Your task to perform on an android device: open app "Grab" (install if not already installed), go to login, and select forgot password Image 0: 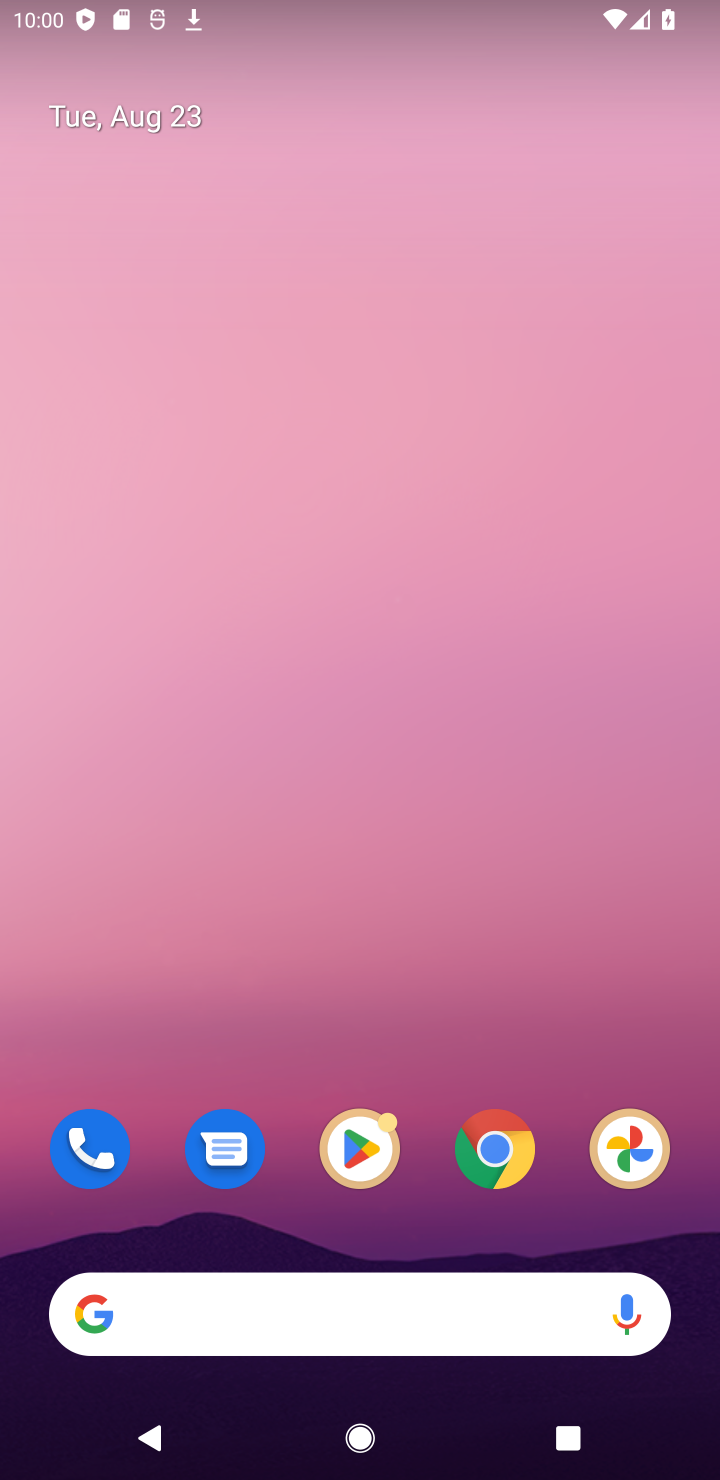
Step 0: click (351, 1173)
Your task to perform on an android device: open app "Grab" (install if not already installed), go to login, and select forgot password Image 1: 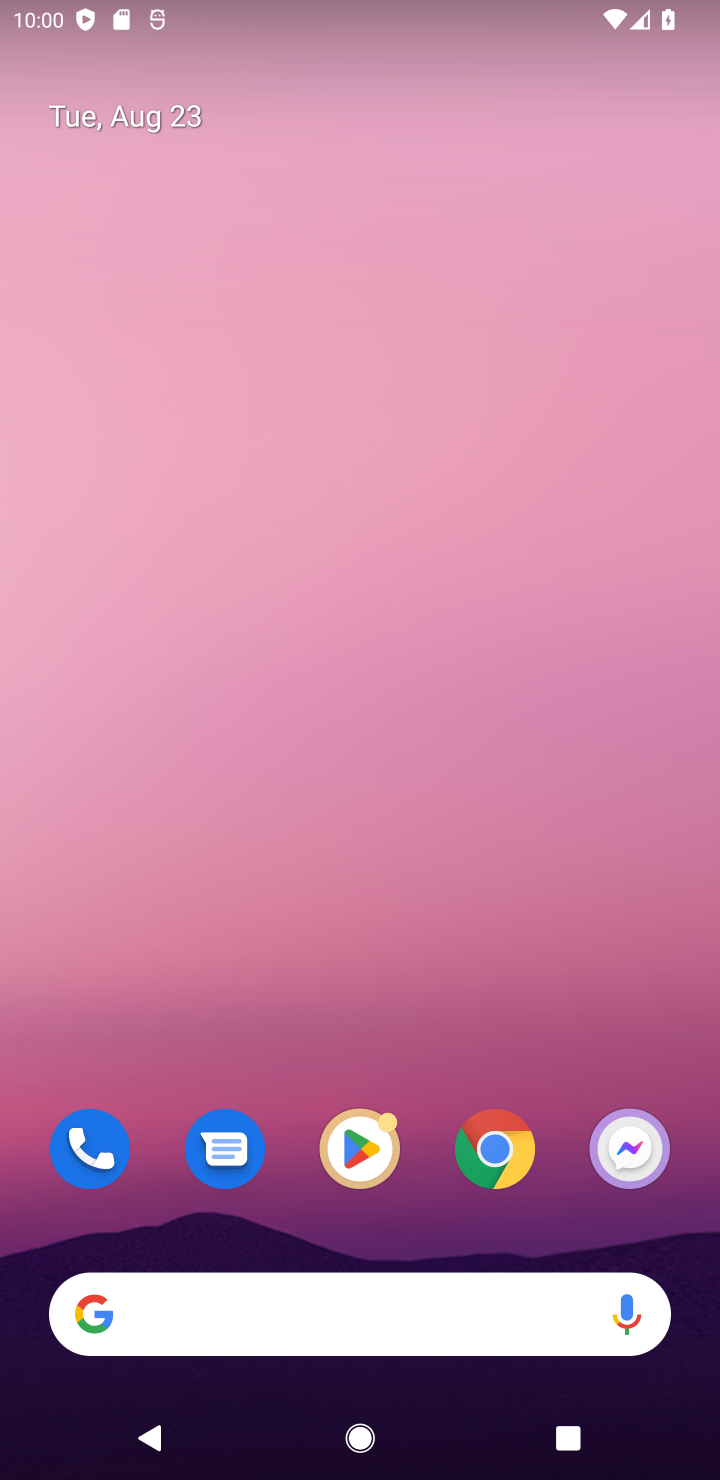
Step 1: click (368, 1142)
Your task to perform on an android device: open app "Grab" (install if not already installed), go to login, and select forgot password Image 2: 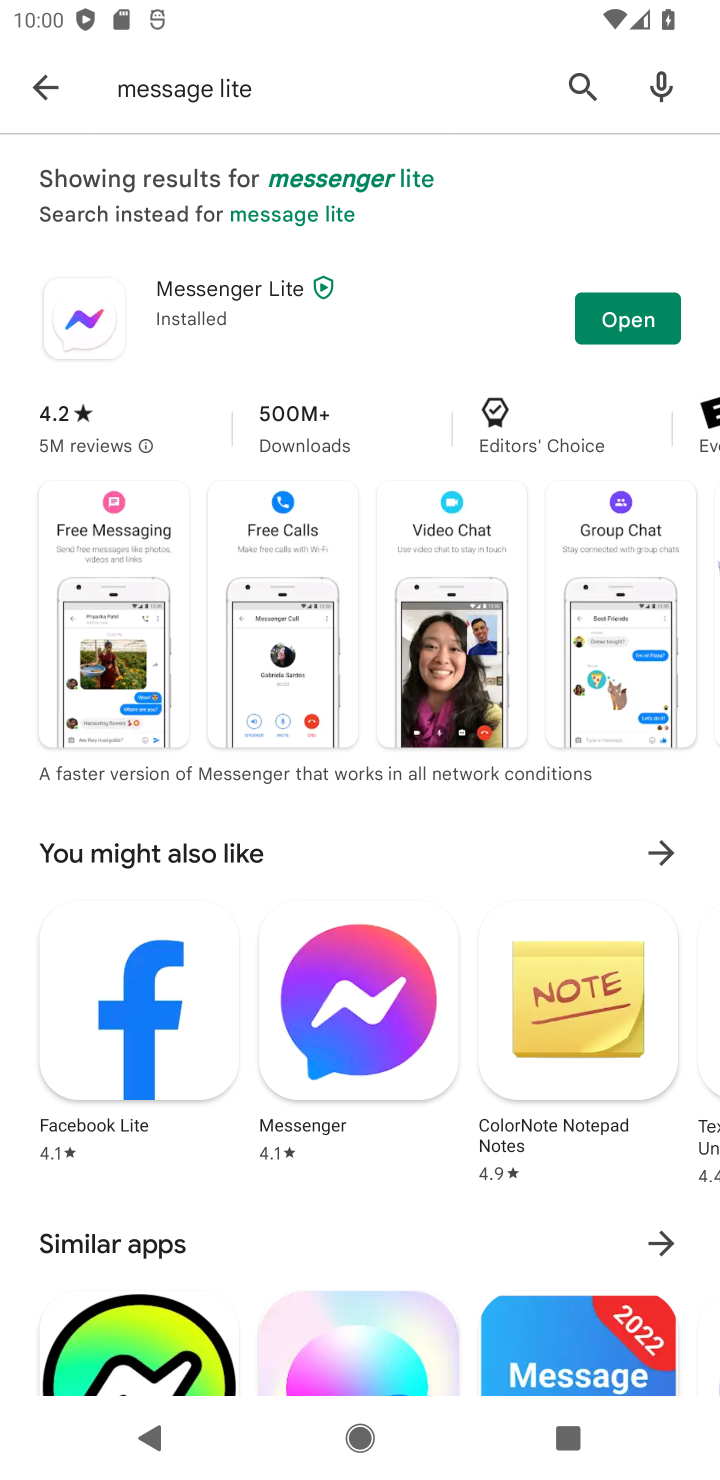
Step 2: click (580, 83)
Your task to perform on an android device: open app "Grab" (install if not already installed), go to login, and select forgot password Image 3: 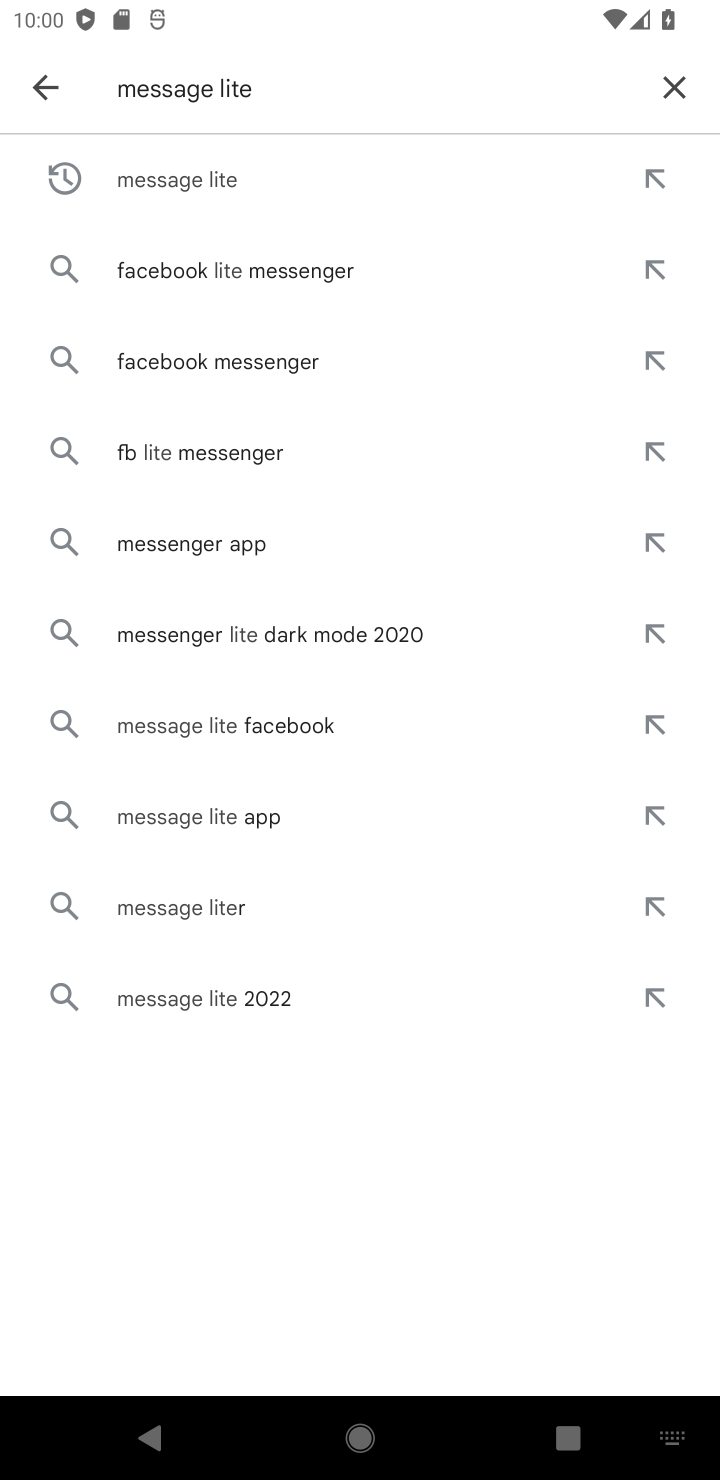
Step 3: click (657, 83)
Your task to perform on an android device: open app "Grab" (install if not already installed), go to login, and select forgot password Image 4: 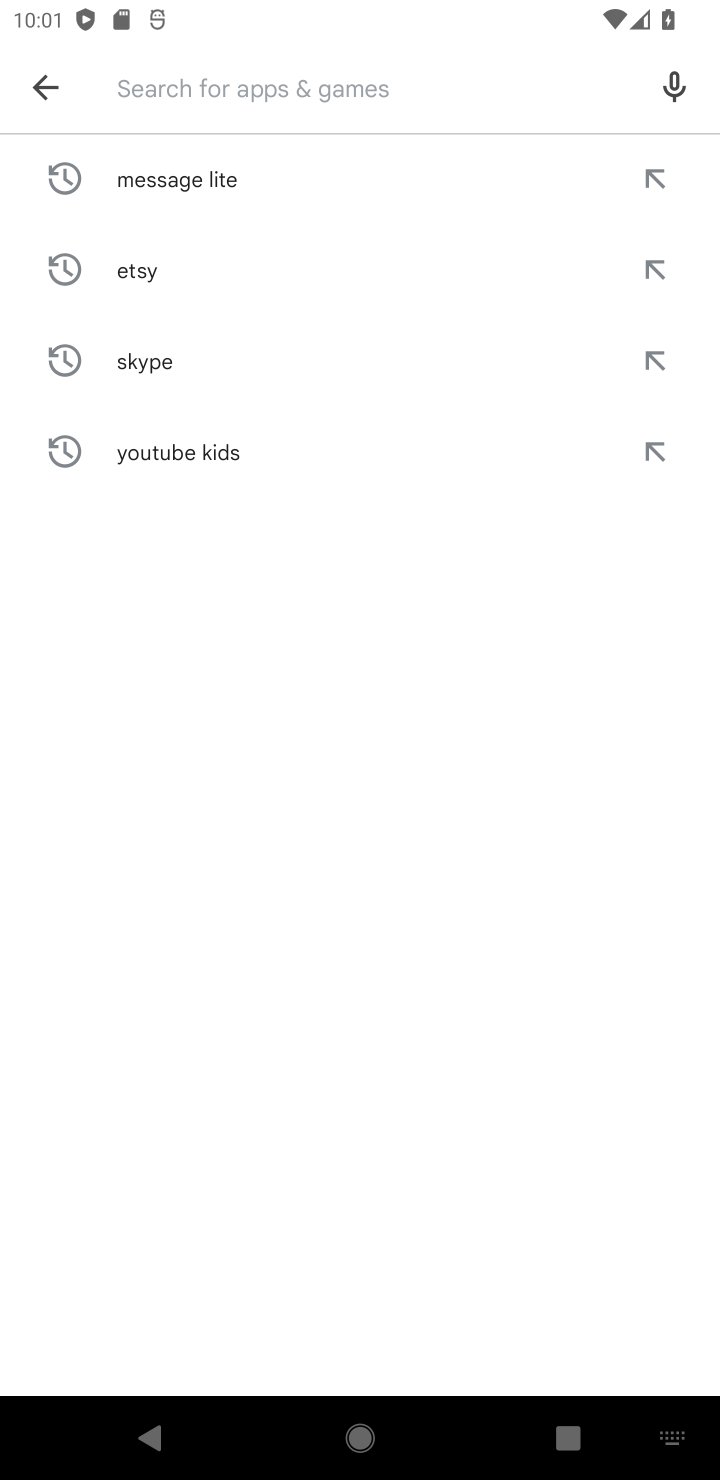
Step 4: type "grab"
Your task to perform on an android device: open app "Grab" (install if not already installed), go to login, and select forgot password Image 5: 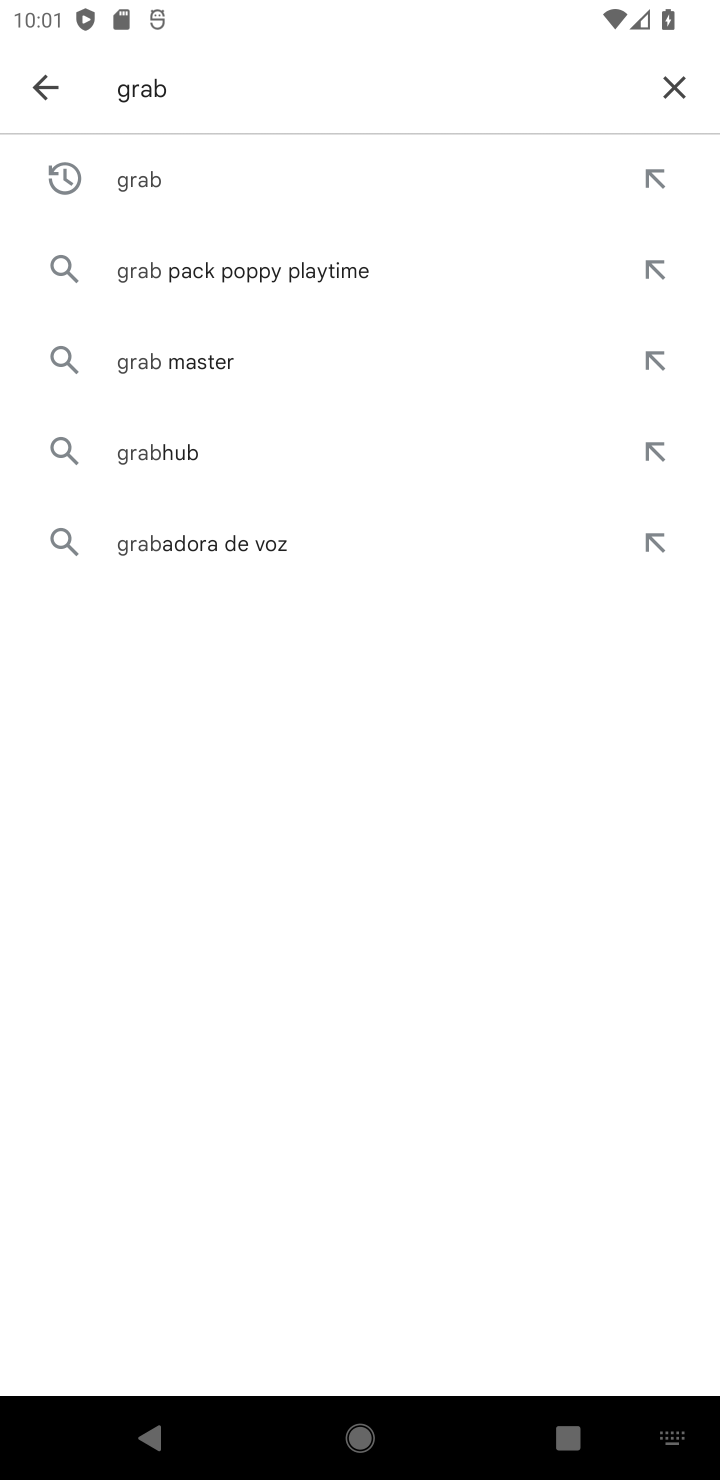
Step 5: click (287, 175)
Your task to perform on an android device: open app "Grab" (install if not already installed), go to login, and select forgot password Image 6: 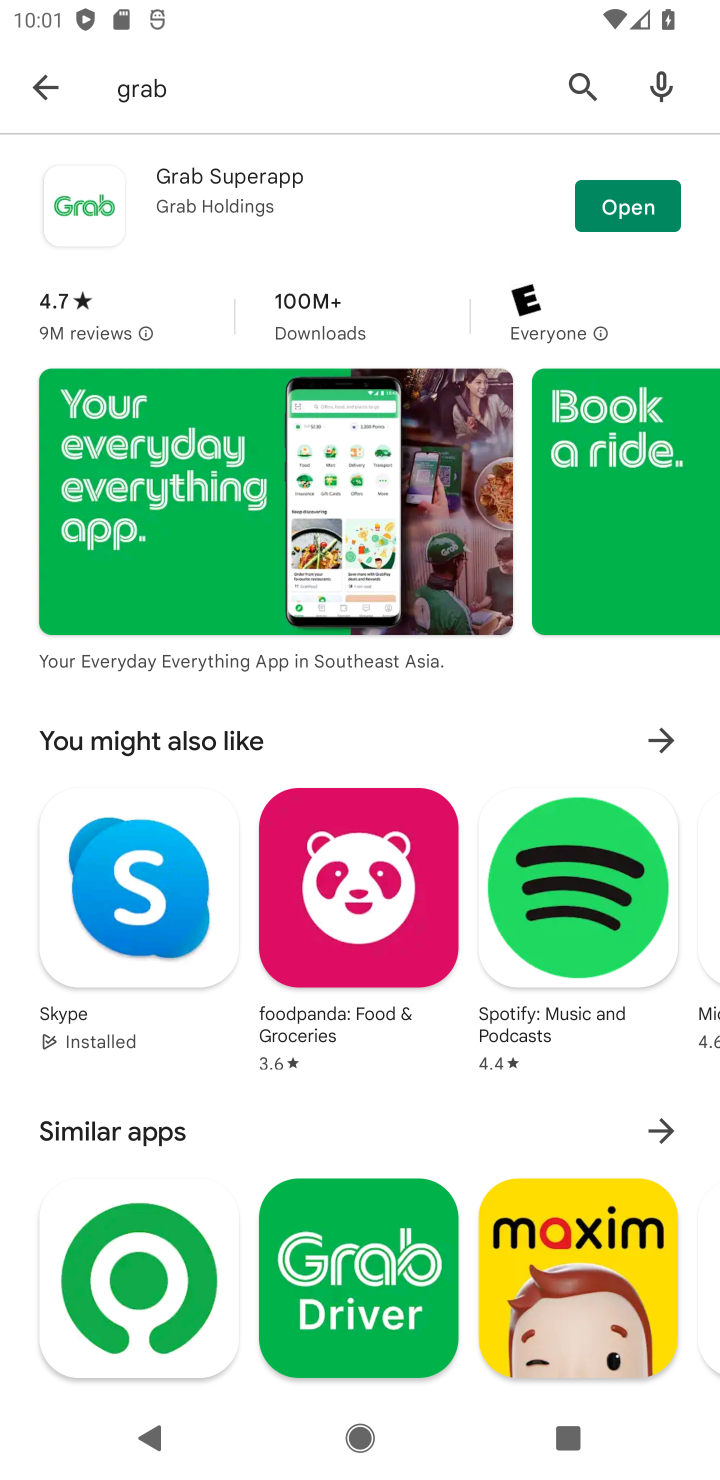
Step 6: click (602, 226)
Your task to perform on an android device: open app "Grab" (install if not already installed), go to login, and select forgot password Image 7: 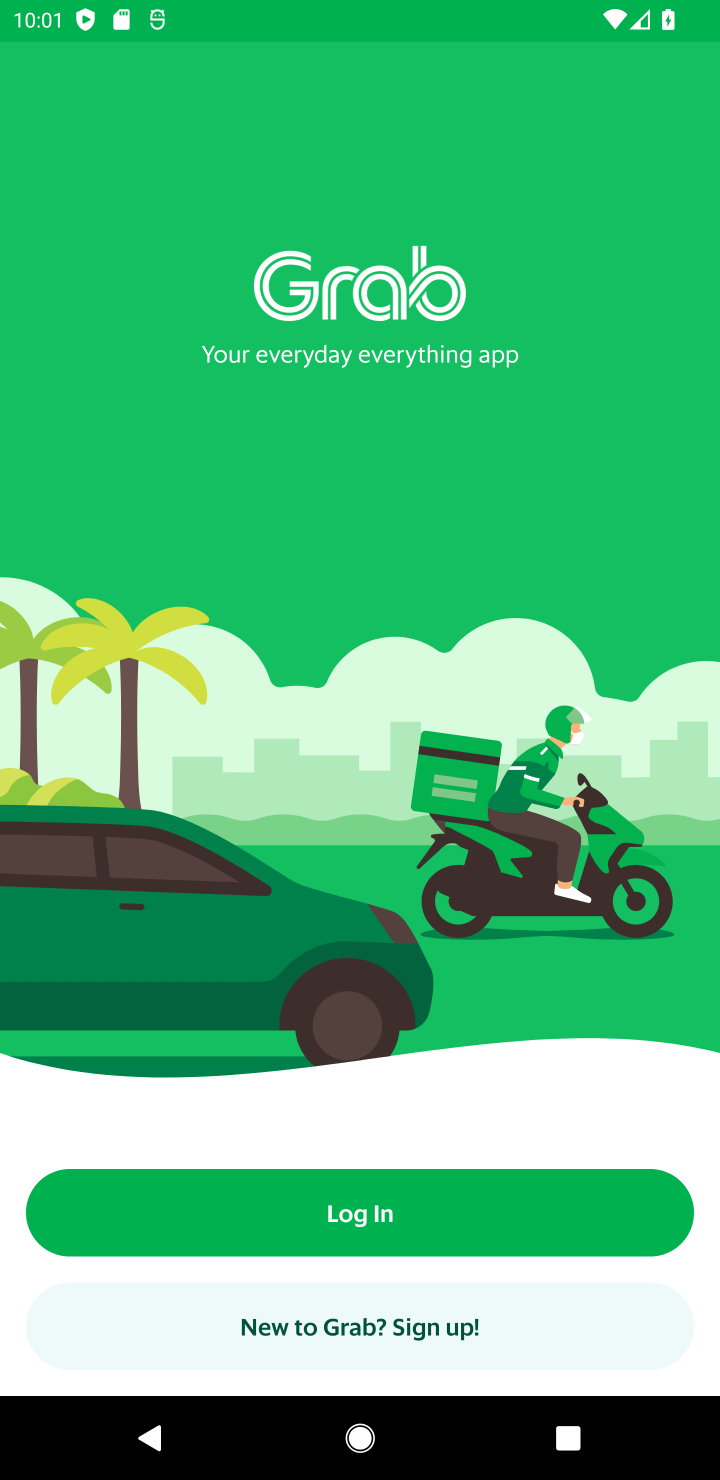
Step 7: click (415, 1223)
Your task to perform on an android device: open app "Grab" (install if not already installed), go to login, and select forgot password Image 8: 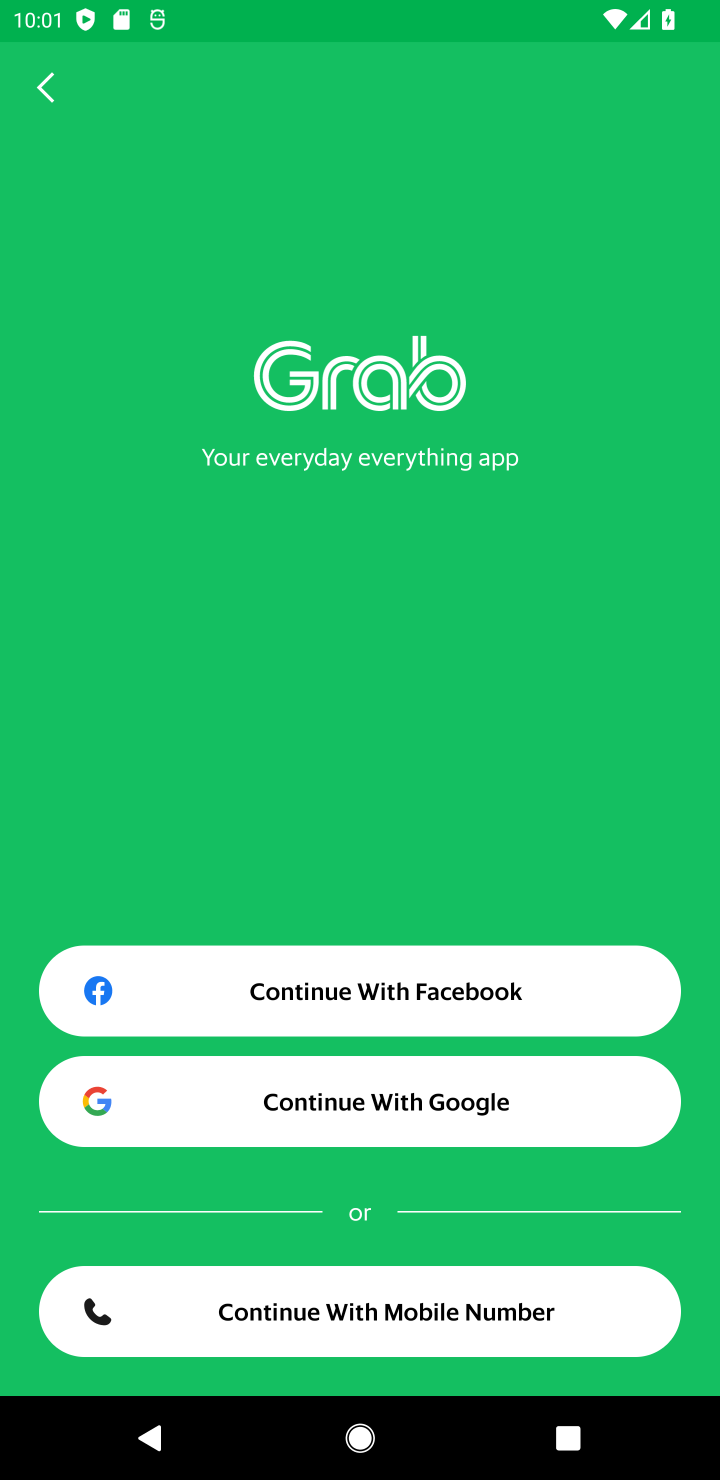
Step 8: click (350, 1313)
Your task to perform on an android device: open app "Grab" (install if not already installed), go to login, and select forgot password Image 9: 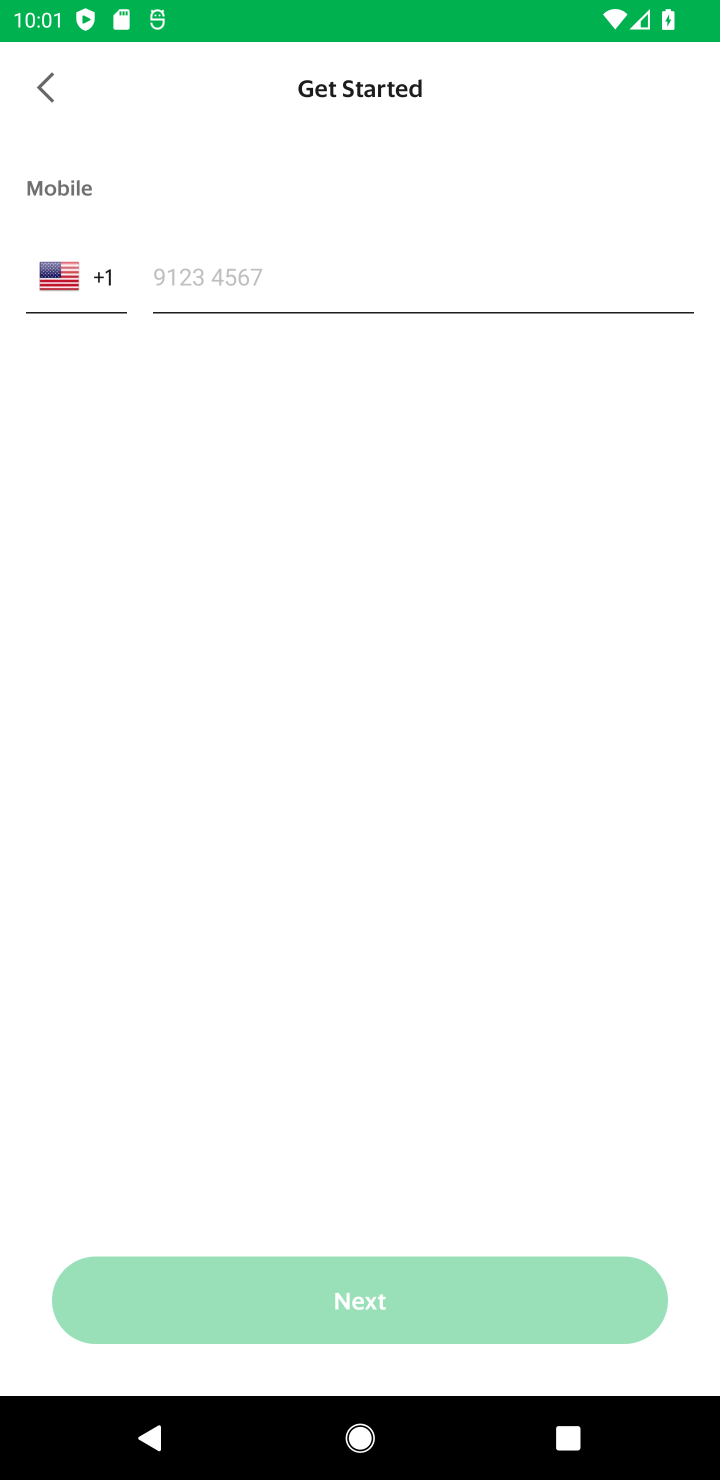
Step 9: task complete